Your task to perform on an android device: read, delete, or share a saved page in the chrome app Image 0: 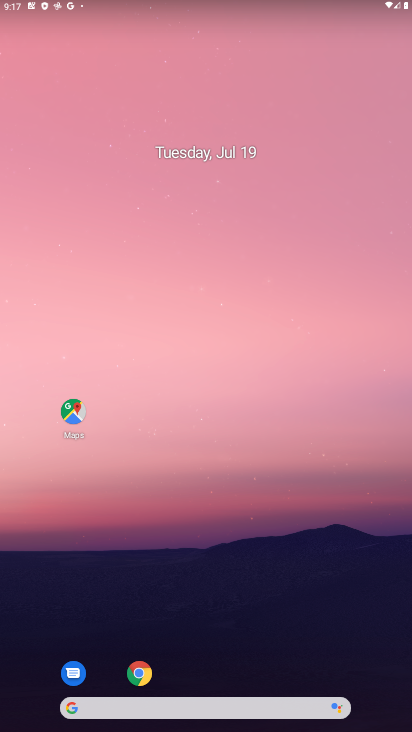
Step 0: click (130, 684)
Your task to perform on an android device: read, delete, or share a saved page in the chrome app Image 1: 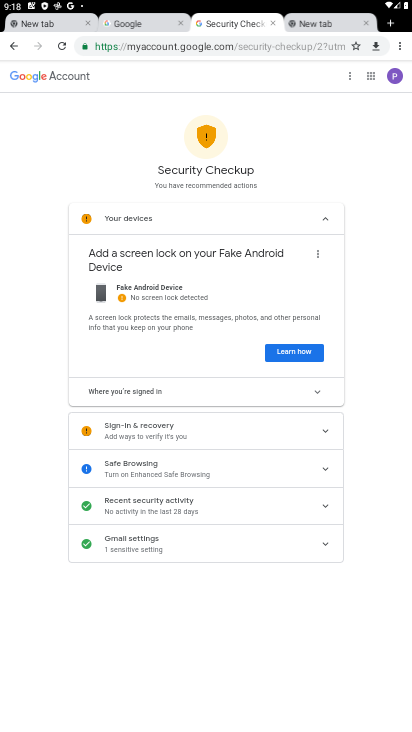
Step 1: click (397, 39)
Your task to perform on an android device: read, delete, or share a saved page in the chrome app Image 2: 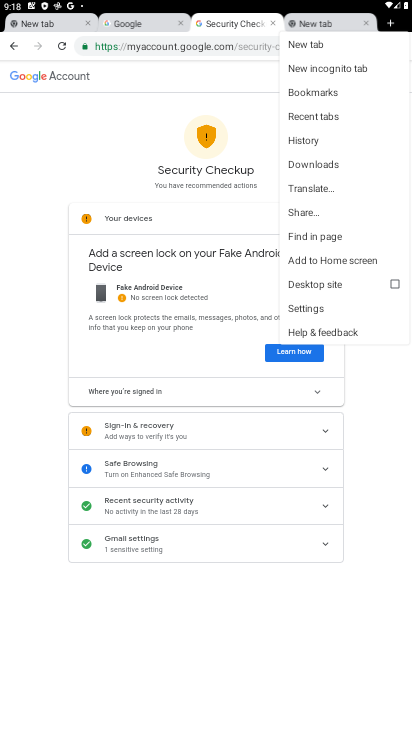
Step 2: click (325, 169)
Your task to perform on an android device: read, delete, or share a saved page in the chrome app Image 3: 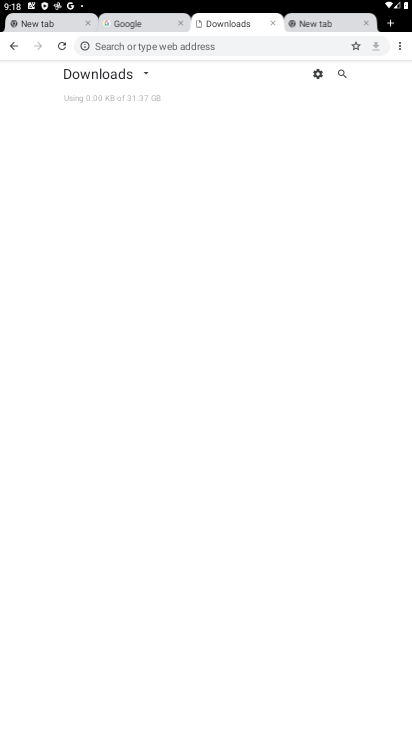
Step 3: task complete